Your task to perform on an android device: remove spam from my inbox in the gmail app Image 0: 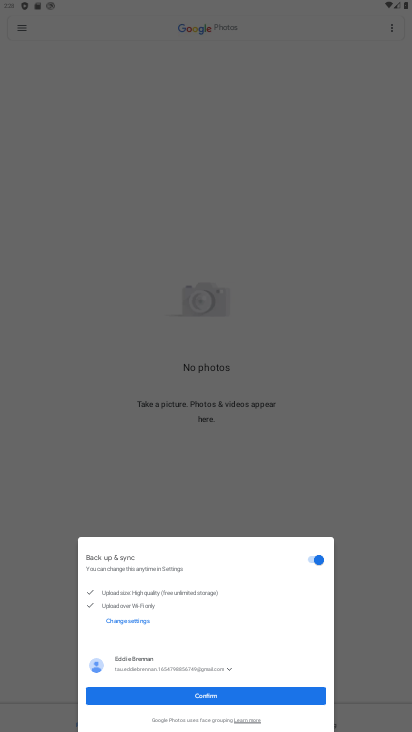
Step 0: press back button
Your task to perform on an android device: remove spam from my inbox in the gmail app Image 1: 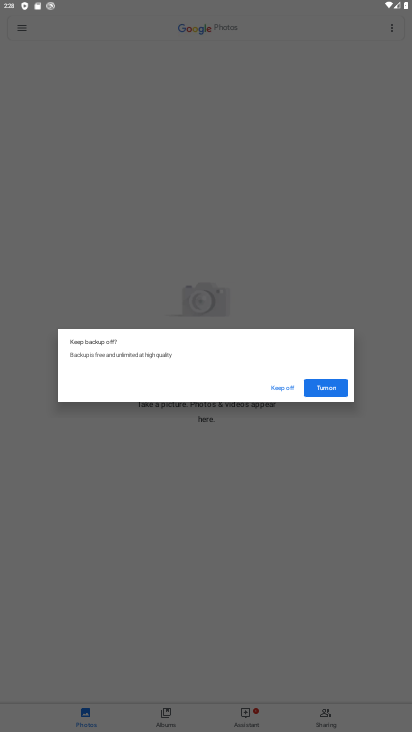
Step 1: drag from (256, 589) to (144, 18)
Your task to perform on an android device: remove spam from my inbox in the gmail app Image 2: 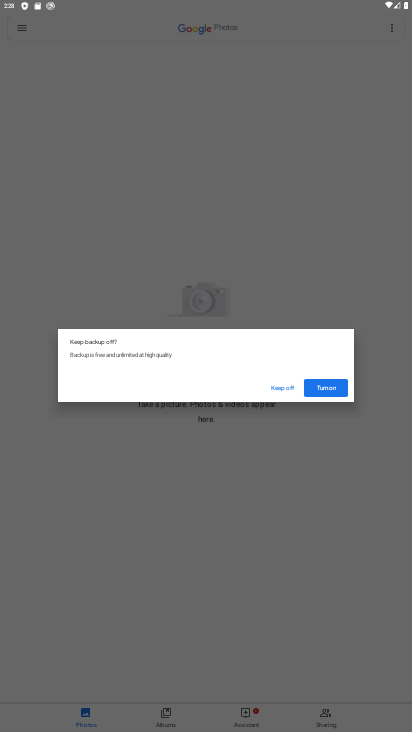
Step 2: drag from (216, 464) to (134, 50)
Your task to perform on an android device: remove spam from my inbox in the gmail app Image 3: 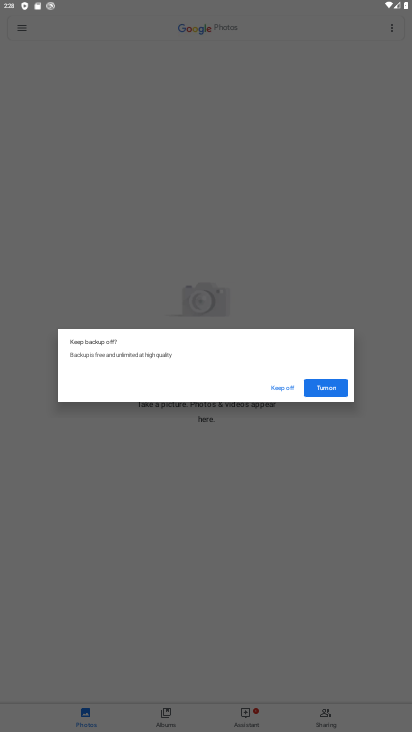
Step 3: drag from (237, 504) to (197, 63)
Your task to perform on an android device: remove spam from my inbox in the gmail app Image 4: 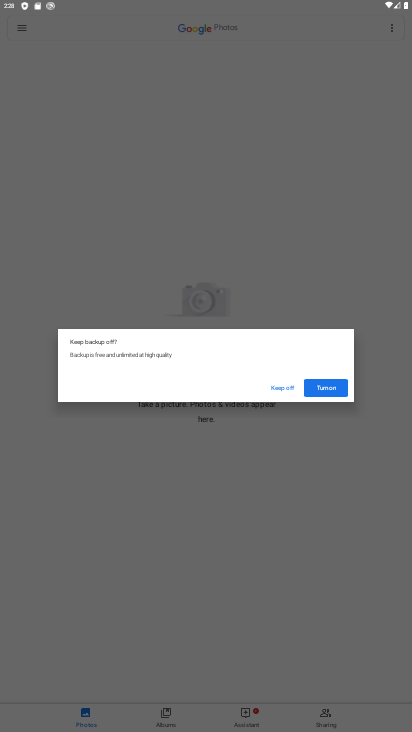
Step 4: click (286, 389)
Your task to perform on an android device: remove spam from my inbox in the gmail app Image 5: 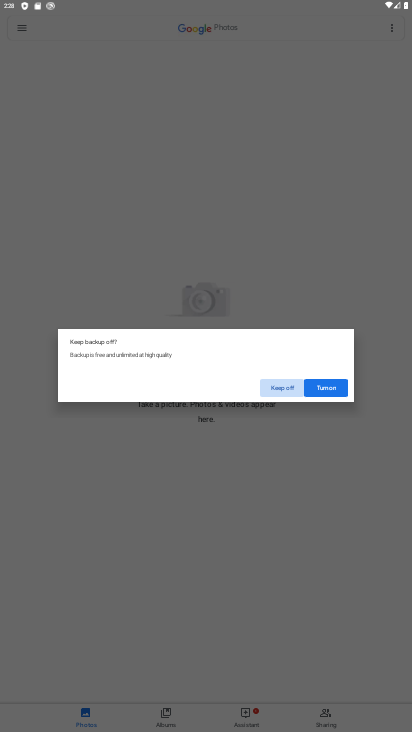
Step 5: click (286, 386)
Your task to perform on an android device: remove spam from my inbox in the gmail app Image 6: 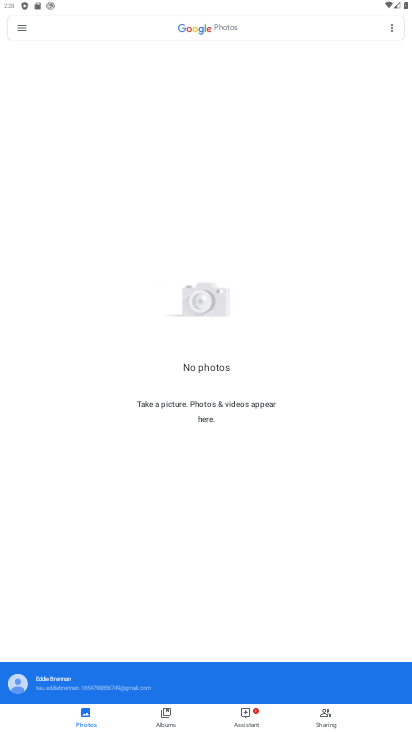
Step 6: click (286, 385)
Your task to perform on an android device: remove spam from my inbox in the gmail app Image 7: 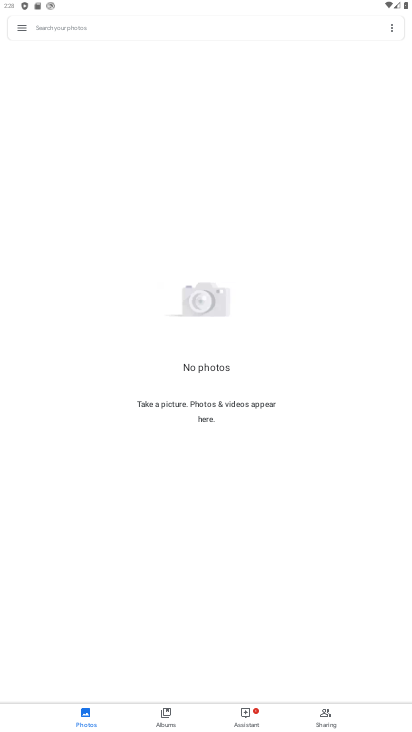
Step 7: press back button
Your task to perform on an android device: remove spam from my inbox in the gmail app Image 8: 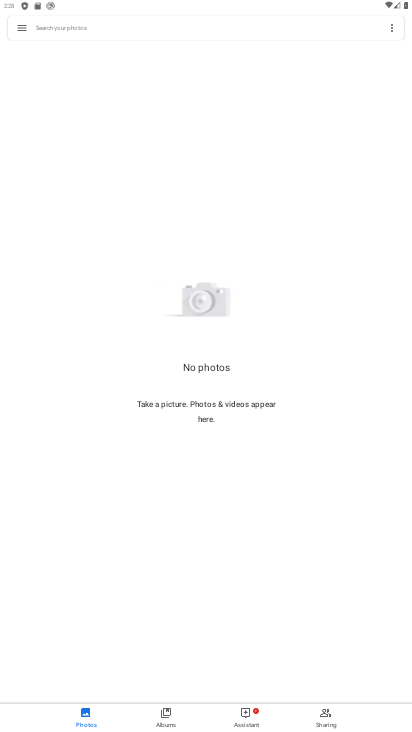
Step 8: press back button
Your task to perform on an android device: remove spam from my inbox in the gmail app Image 9: 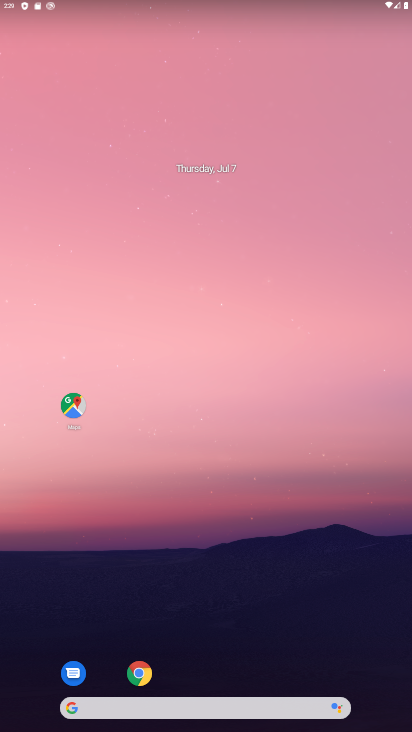
Step 9: drag from (219, 469) to (181, 175)
Your task to perform on an android device: remove spam from my inbox in the gmail app Image 10: 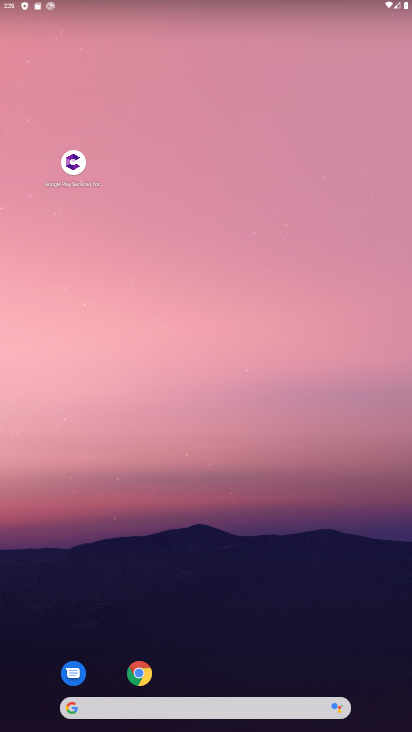
Step 10: drag from (247, 610) to (214, 83)
Your task to perform on an android device: remove spam from my inbox in the gmail app Image 11: 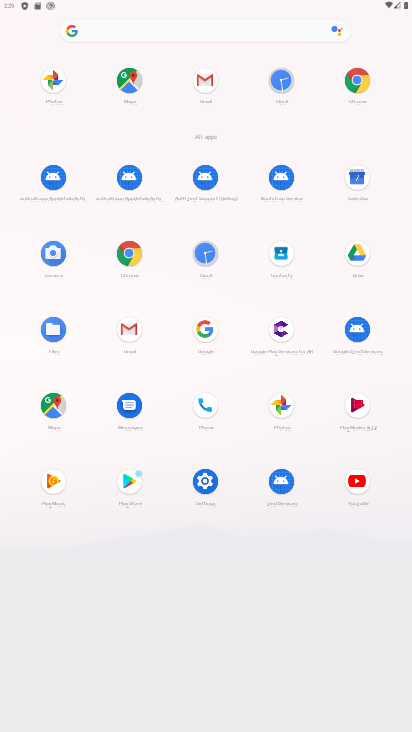
Step 11: click (120, 318)
Your task to perform on an android device: remove spam from my inbox in the gmail app Image 12: 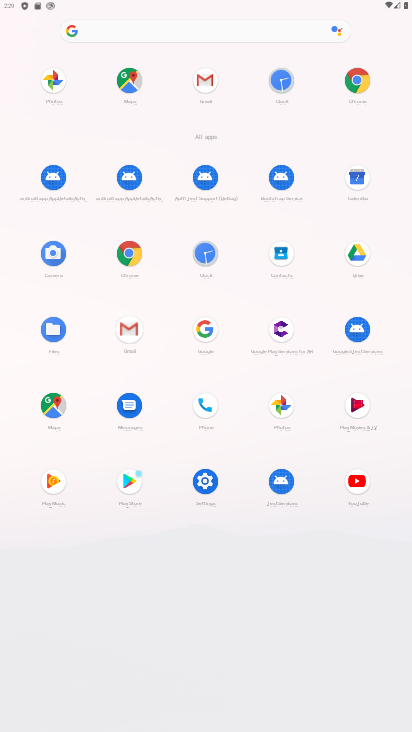
Step 12: click (123, 323)
Your task to perform on an android device: remove spam from my inbox in the gmail app Image 13: 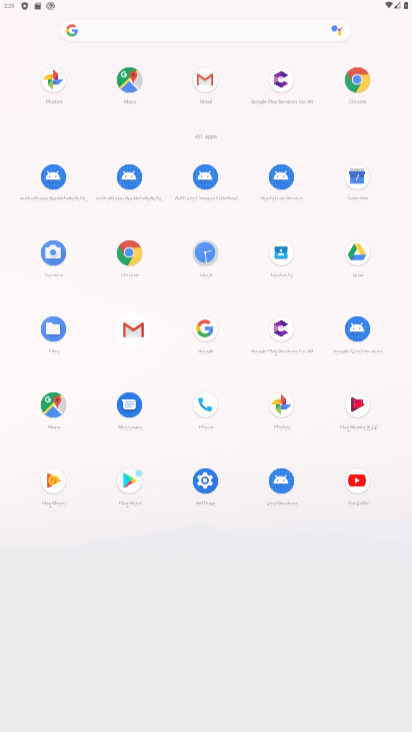
Step 13: click (125, 325)
Your task to perform on an android device: remove spam from my inbox in the gmail app Image 14: 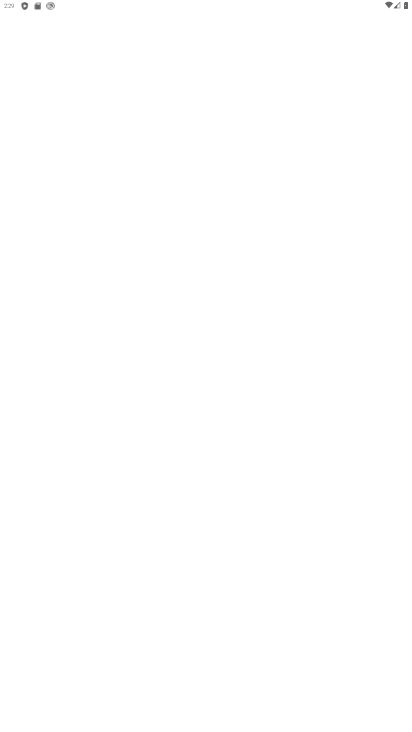
Step 14: click (126, 325)
Your task to perform on an android device: remove spam from my inbox in the gmail app Image 15: 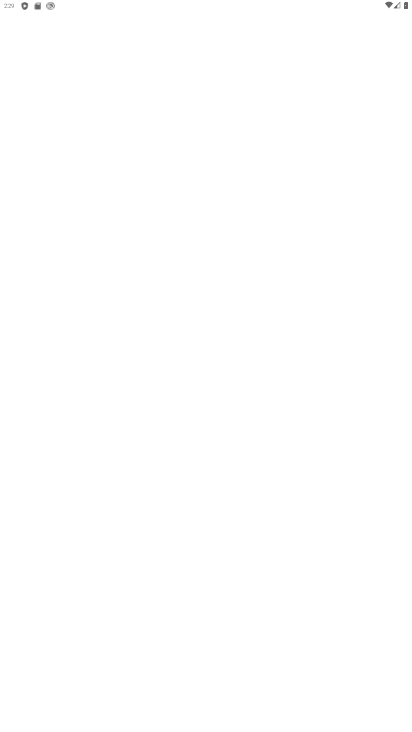
Step 15: click (127, 326)
Your task to perform on an android device: remove spam from my inbox in the gmail app Image 16: 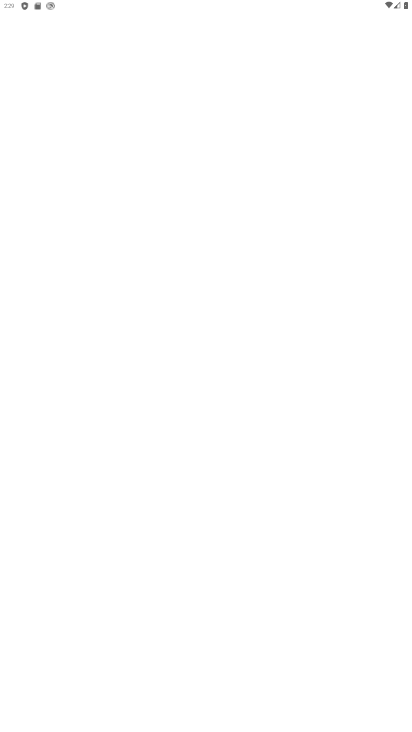
Step 16: click (127, 326)
Your task to perform on an android device: remove spam from my inbox in the gmail app Image 17: 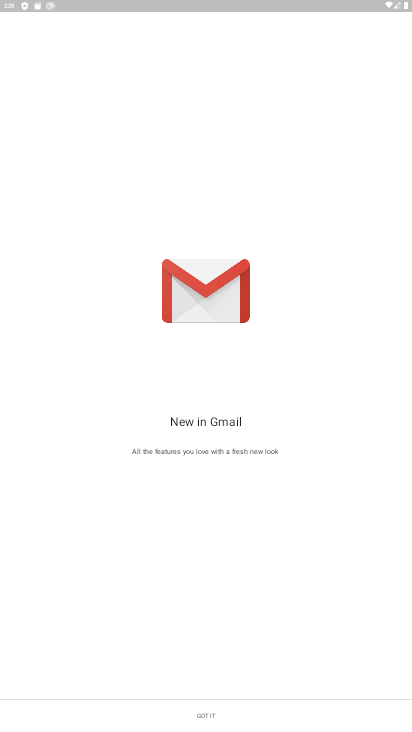
Step 17: click (205, 432)
Your task to perform on an android device: remove spam from my inbox in the gmail app Image 18: 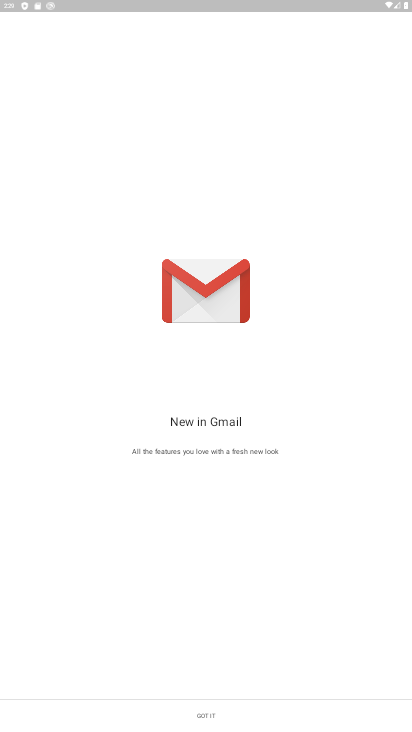
Step 18: click (199, 429)
Your task to perform on an android device: remove spam from my inbox in the gmail app Image 19: 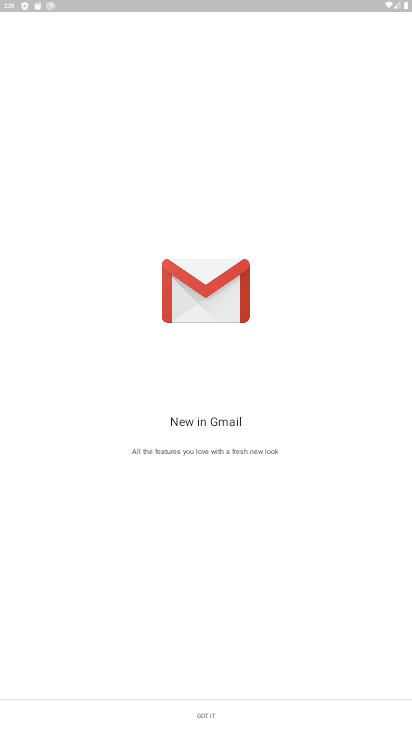
Step 19: click (199, 429)
Your task to perform on an android device: remove spam from my inbox in the gmail app Image 20: 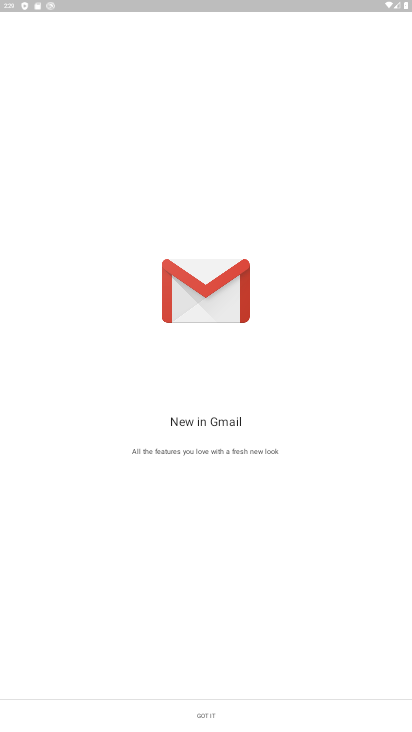
Step 20: click (200, 429)
Your task to perform on an android device: remove spam from my inbox in the gmail app Image 21: 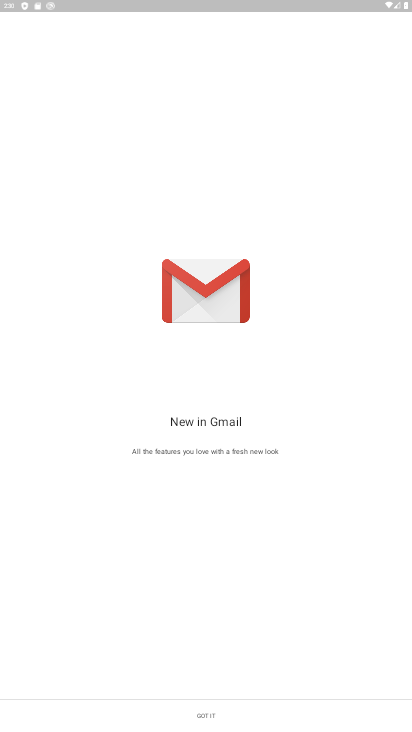
Step 21: click (204, 428)
Your task to perform on an android device: remove spam from my inbox in the gmail app Image 22: 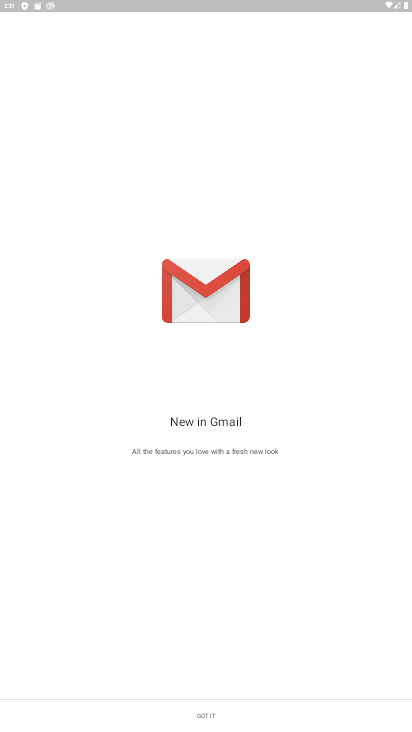
Step 22: click (205, 429)
Your task to perform on an android device: remove spam from my inbox in the gmail app Image 23: 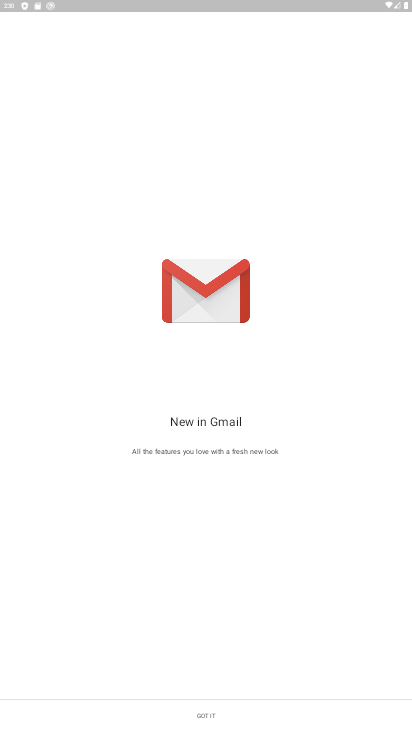
Step 23: click (205, 429)
Your task to perform on an android device: remove spam from my inbox in the gmail app Image 24: 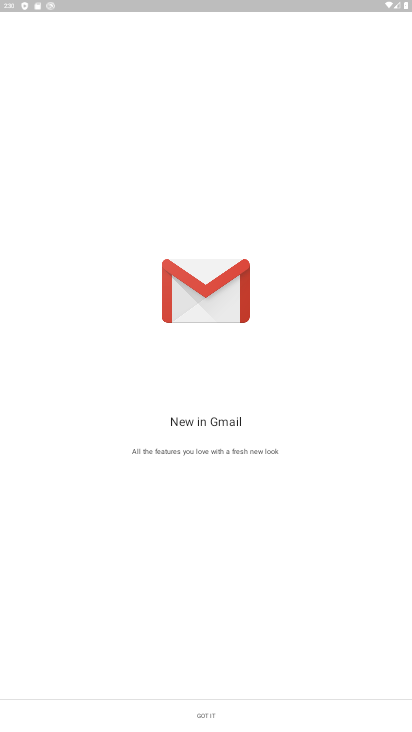
Step 24: click (204, 430)
Your task to perform on an android device: remove spam from my inbox in the gmail app Image 25: 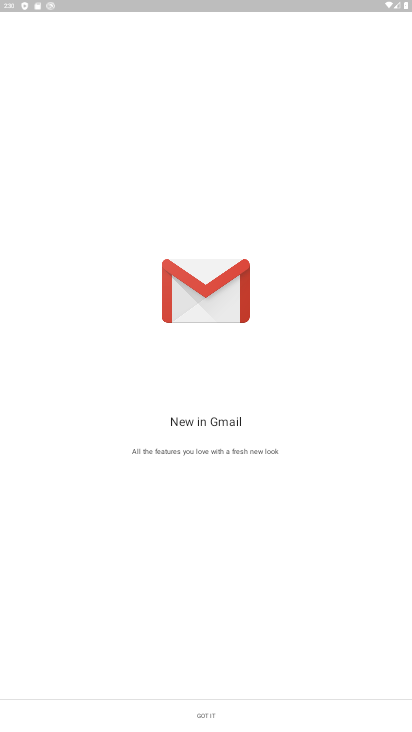
Step 25: click (204, 430)
Your task to perform on an android device: remove spam from my inbox in the gmail app Image 26: 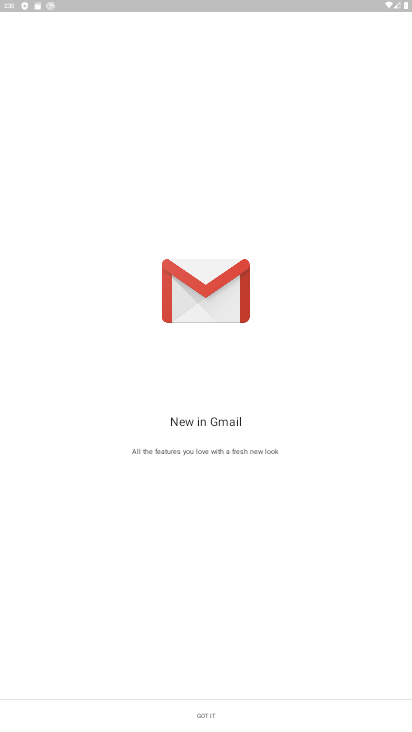
Step 26: click (204, 430)
Your task to perform on an android device: remove spam from my inbox in the gmail app Image 27: 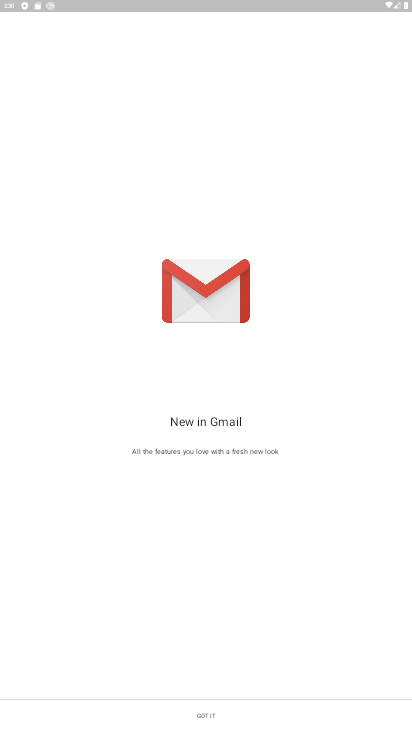
Step 27: click (205, 429)
Your task to perform on an android device: remove spam from my inbox in the gmail app Image 28: 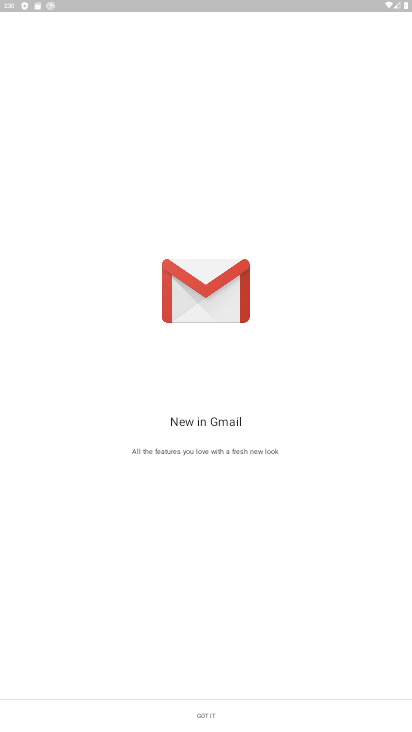
Step 28: click (197, 406)
Your task to perform on an android device: remove spam from my inbox in the gmail app Image 29: 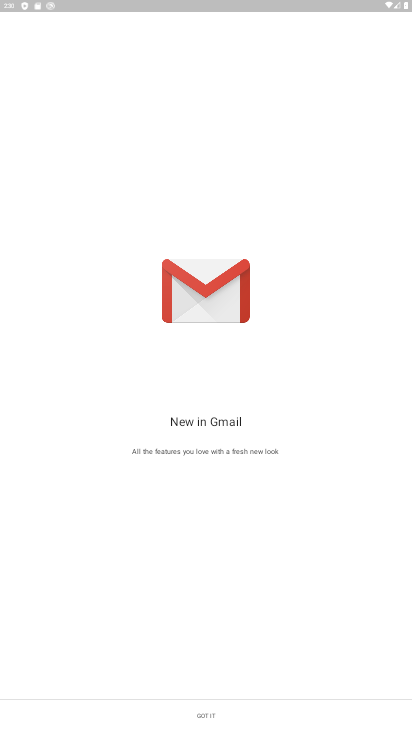
Step 29: click (172, 363)
Your task to perform on an android device: remove spam from my inbox in the gmail app Image 30: 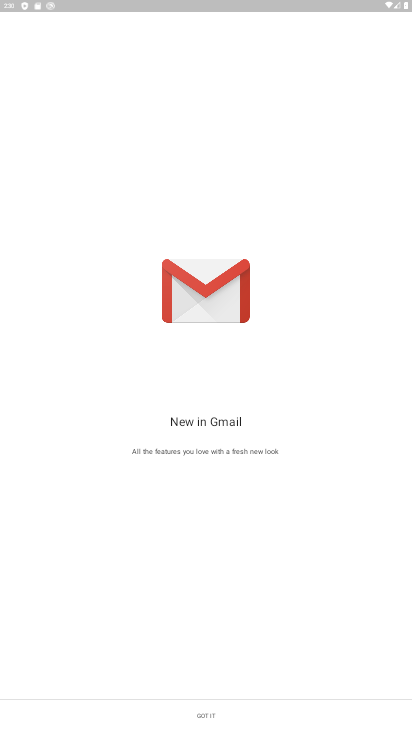
Step 30: click (176, 364)
Your task to perform on an android device: remove spam from my inbox in the gmail app Image 31: 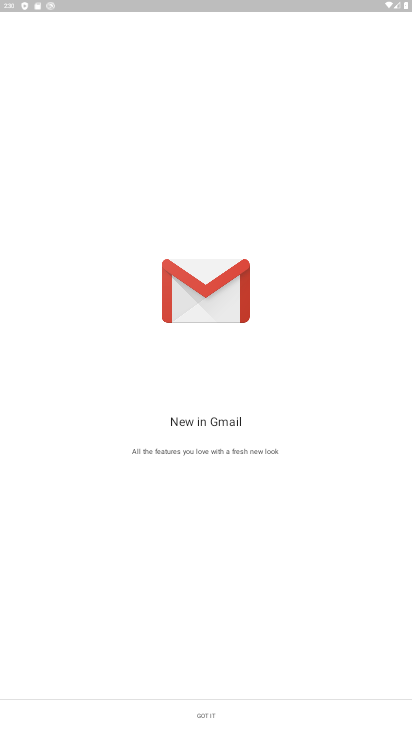
Step 31: click (177, 363)
Your task to perform on an android device: remove spam from my inbox in the gmail app Image 32: 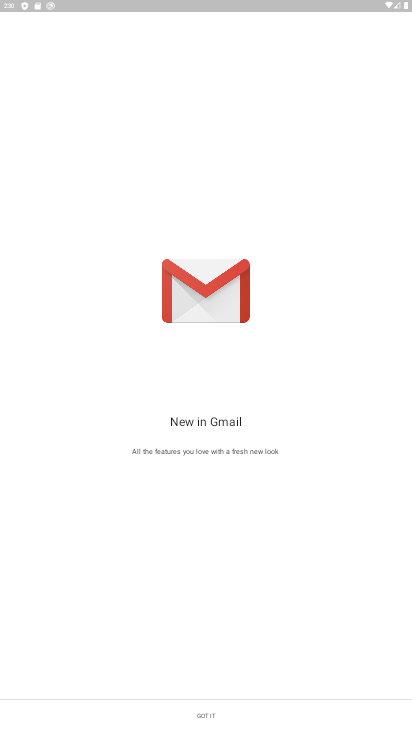
Step 32: click (186, 293)
Your task to perform on an android device: remove spam from my inbox in the gmail app Image 33: 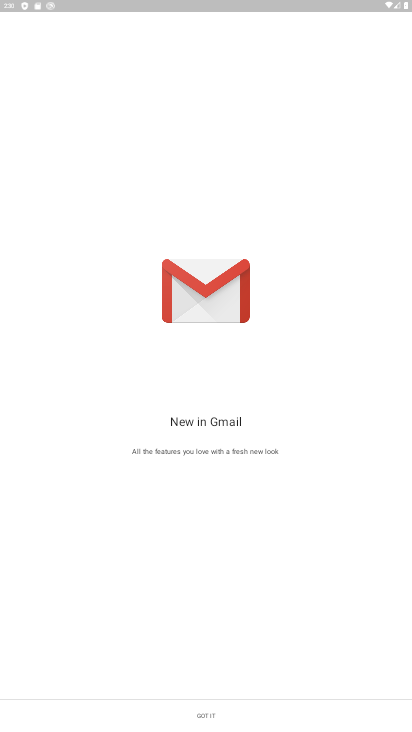
Step 33: click (207, 431)
Your task to perform on an android device: remove spam from my inbox in the gmail app Image 34: 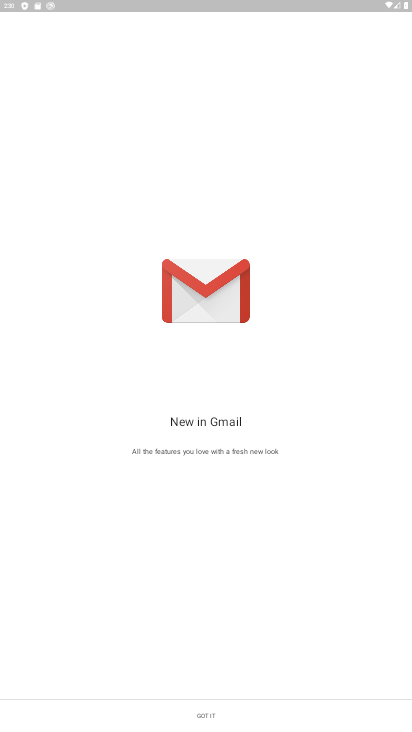
Step 34: drag from (205, 465) to (208, 532)
Your task to perform on an android device: remove spam from my inbox in the gmail app Image 35: 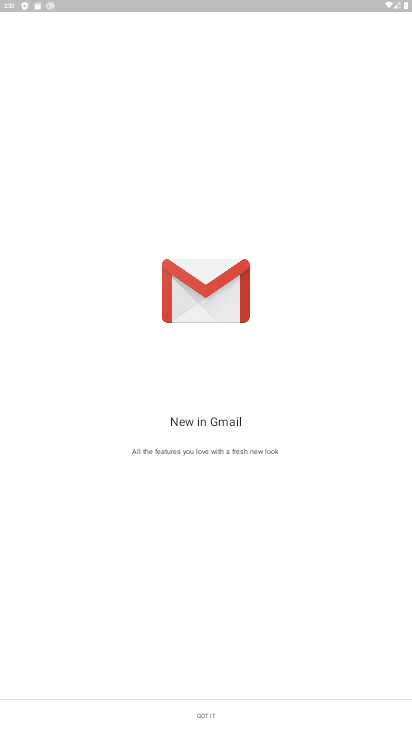
Step 35: click (219, 720)
Your task to perform on an android device: remove spam from my inbox in the gmail app Image 36: 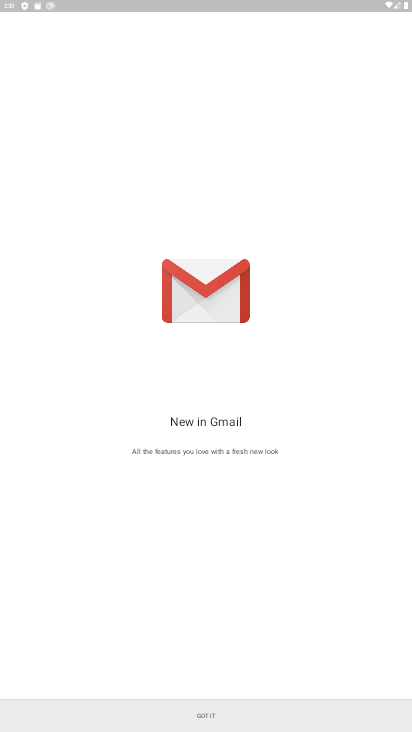
Step 36: click (217, 710)
Your task to perform on an android device: remove spam from my inbox in the gmail app Image 37: 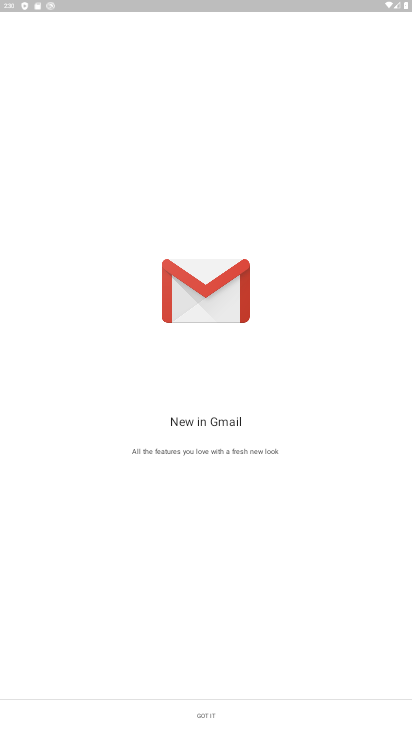
Step 37: click (217, 709)
Your task to perform on an android device: remove spam from my inbox in the gmail app Image 38: 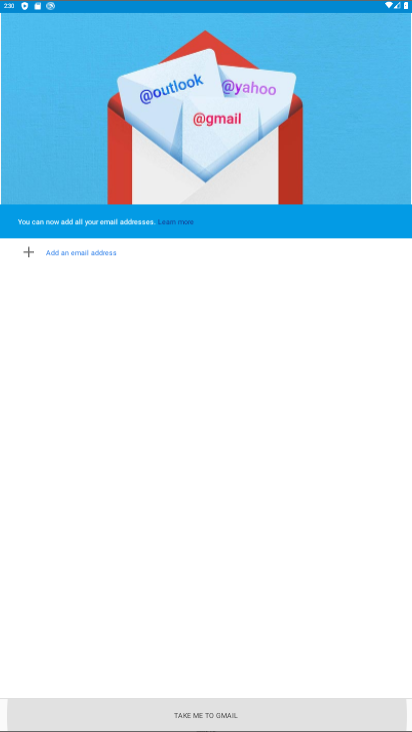
Step 38: click (217, 709)
Your task to perform on an android device: remove spam from my inbox in the gmail app Image 39: 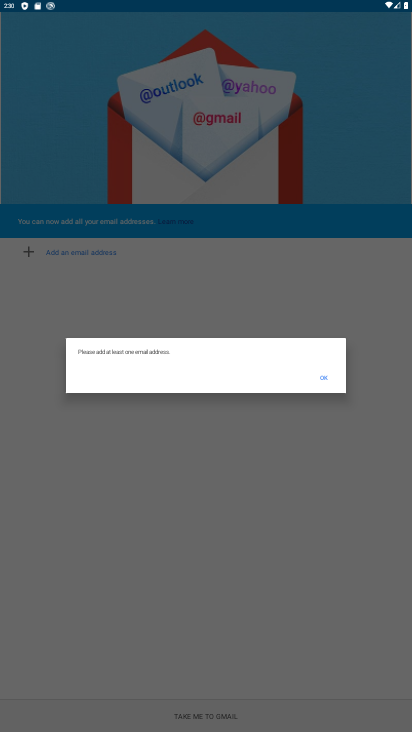
Step 39: click (218, 713)
Your task to perform on an android device: remove spam from my inbox in the gmail app Image 40: 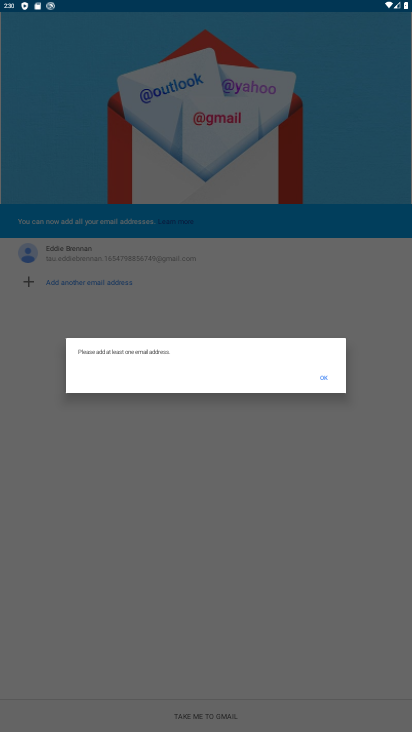
Step 40: click (222, 717)
Your task to perform on an android device: remove spam from my inbox in the gmail app Image 41: 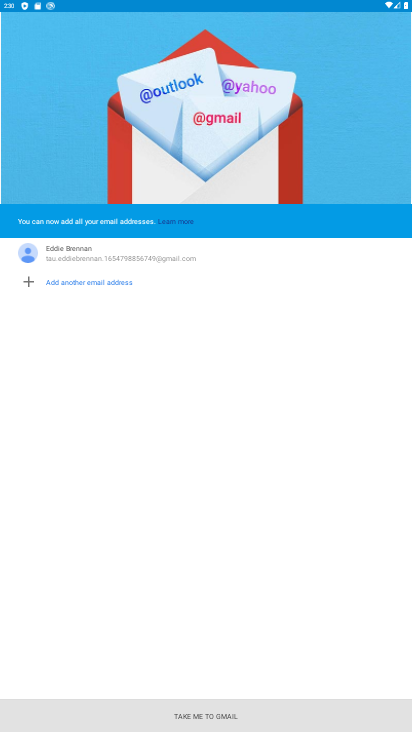
Step 41: click (224, 712)
Your task to perform on an android device: remove spam from my inbox in the gmail app Image 42: 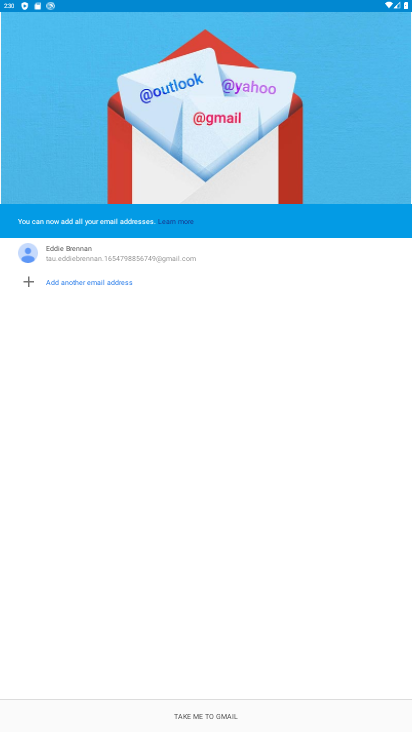
Step 42: click (224, 712)
Your task to perform on an android device: remove spam from my inbox in the gmail app Image 43: 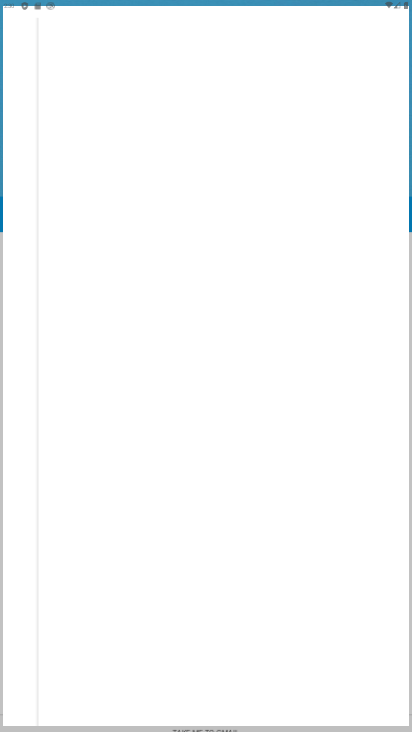
Step 43: click (225, 702)
Your task to perform on an android device: remove spam from my inbox in the gmail app Image 44: 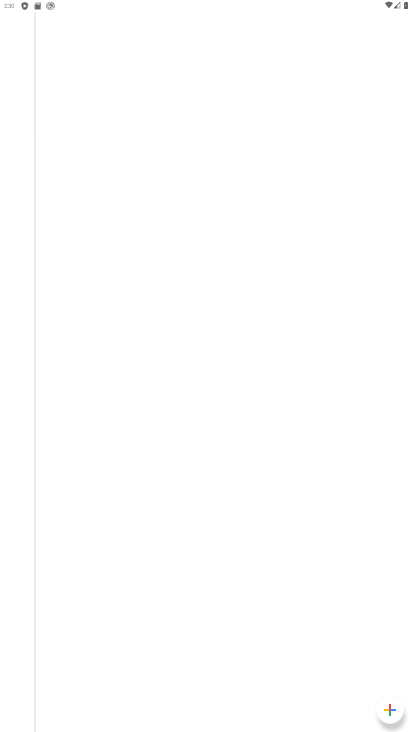
Step 44: click (223, 712)
Your task to perform on an android device: remove spam from my inbox in the gmail app Image 45: 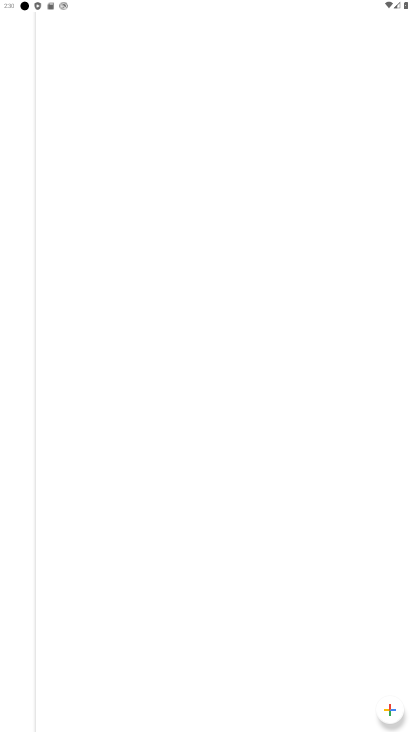
Step 45: click (224, 713)
Your task to perform on an android device: remove spam from my inbox in the gmail app Image 46: 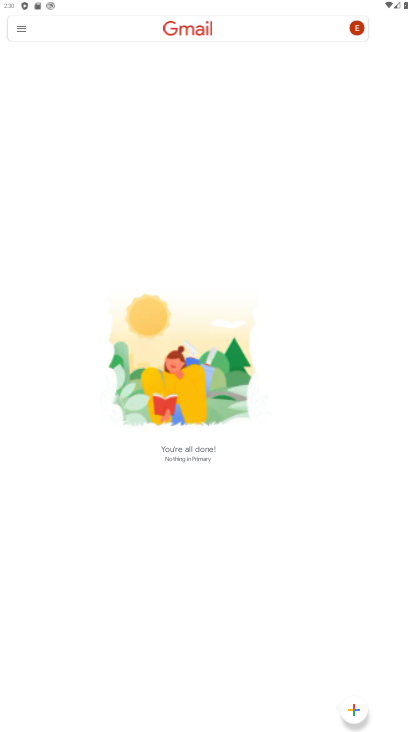
Step 46: click (14, 28)
Your task to perform on an android device: remove spam from my inbox in the gmail app Image 47: 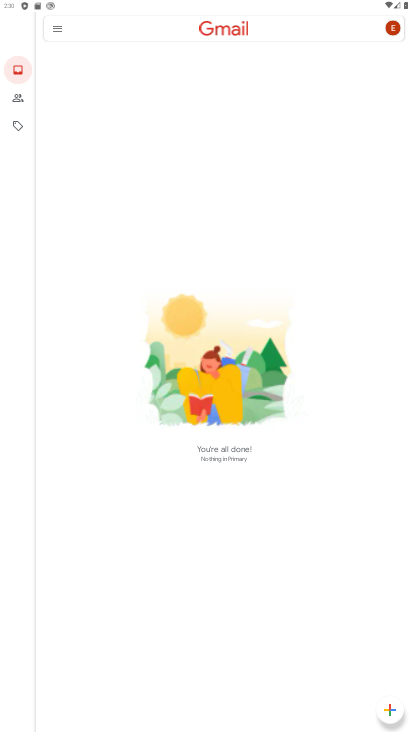
Step 47: click (19, 32)
Your task to perform on an android device: remove spam from my inbox in the gmail app Image 48: 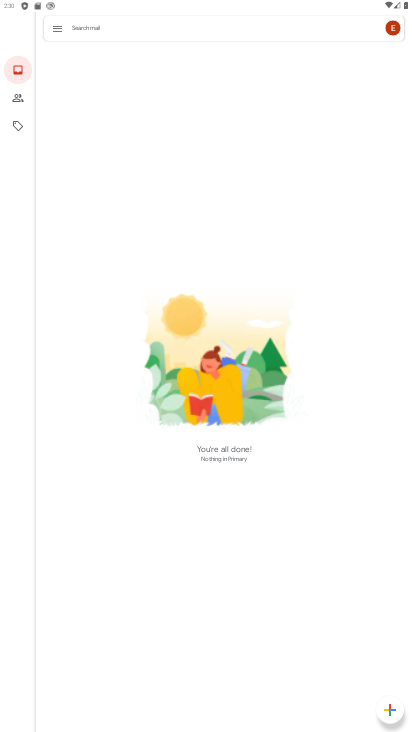
Step 48: click (10, 46)
Your task to perform on an android device: remove spam from my inbox in the gmail app Image 49: 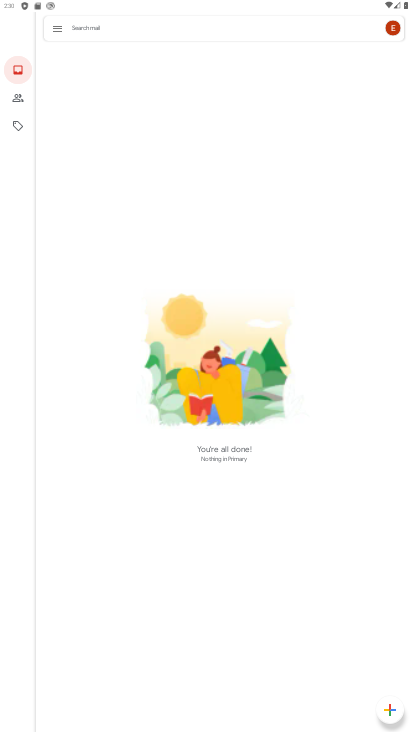
Step 49: task complete